Your task to perform on an android device: set the timer Image 0: 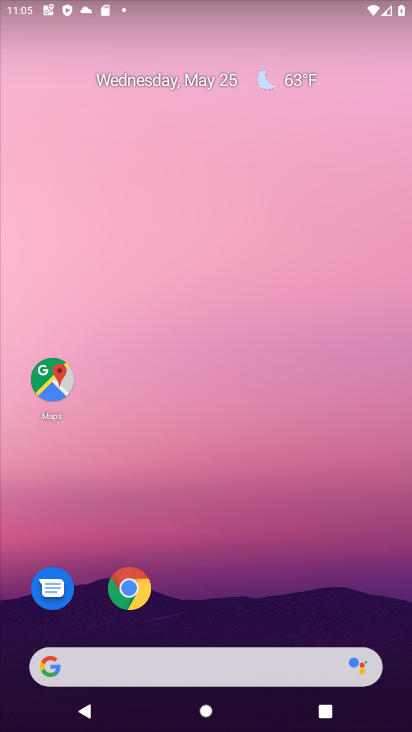
Step 0: drag from (264, 606) to (244, 7)
Your task to perform on an android device: set the timer Image 1: 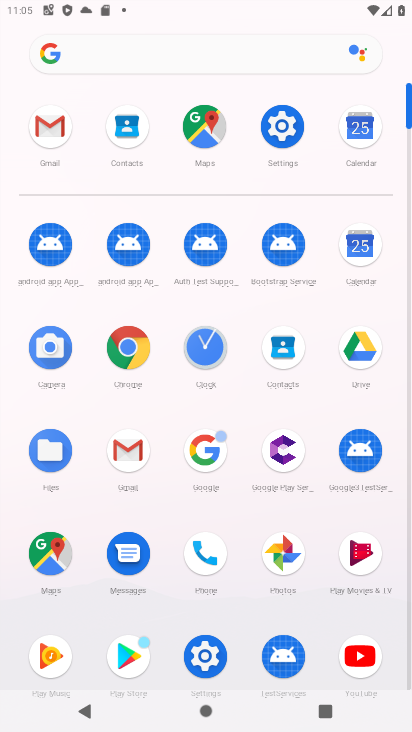
Step 1: click (185, 344)
Your task to perform on an android device: set the timer Image 2: 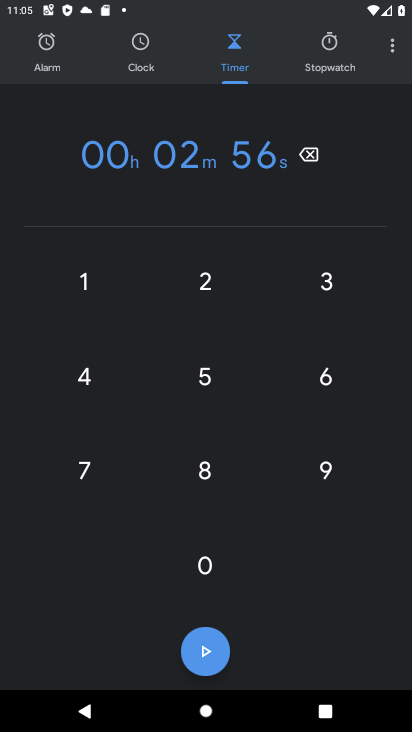
Step 2: click (231, 372)
Your task to perform on an android device: set the timer Image 3: 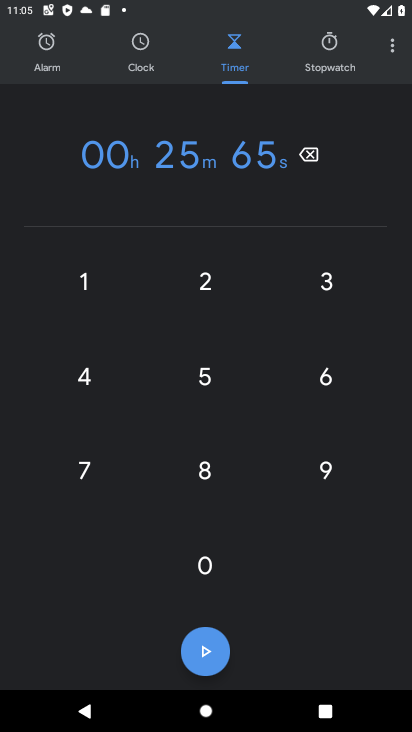
Step 3: task complete